Your task to perform on an android device: toggle sleep mode Image 0: 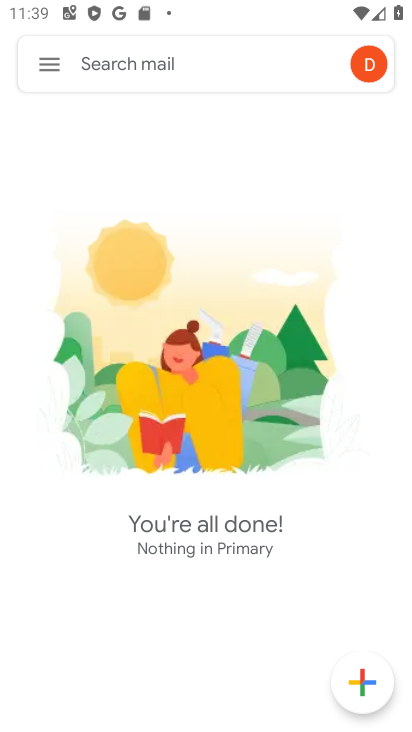
Step 0: press home button
Your task to perform on an android device: toggle sleep mode Image 1: 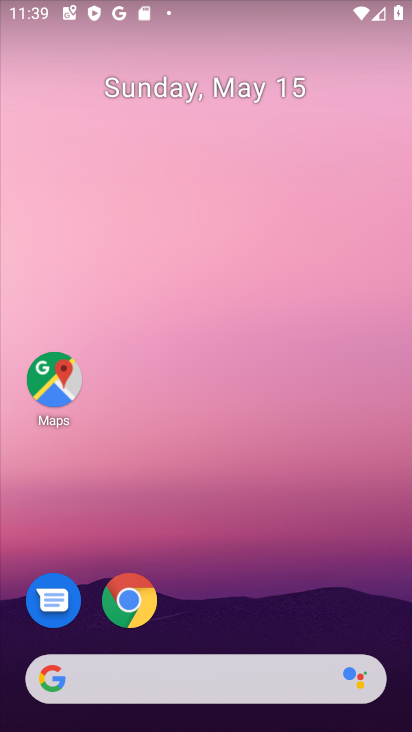
Step 1: drag from (206, 654) to (238, 198)
Your task to perform on an android device: toggle sleep mode Image 2: 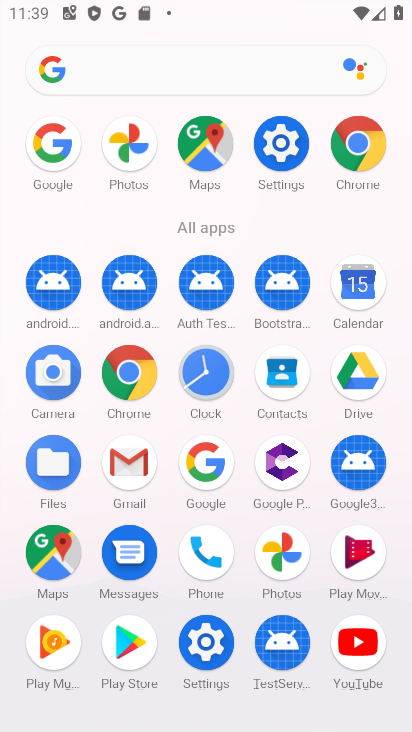
Step 2: click (201, 656)
Your task to perform on an android device: toggle sleep mode Image 3: 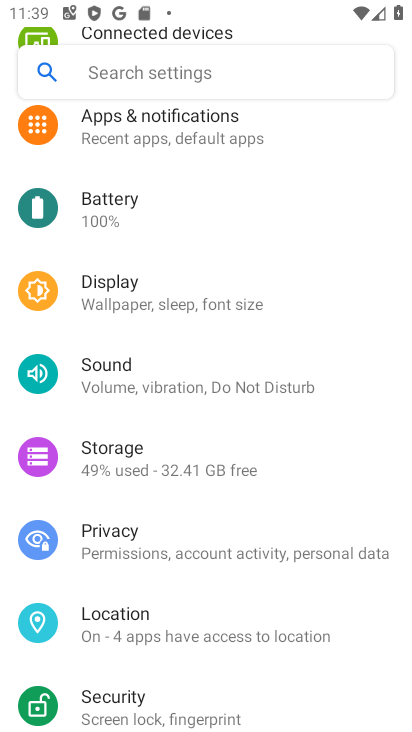
Step 3: click (118, 305)
Your task to perform on an android device: toggle sleep mode Image 4: 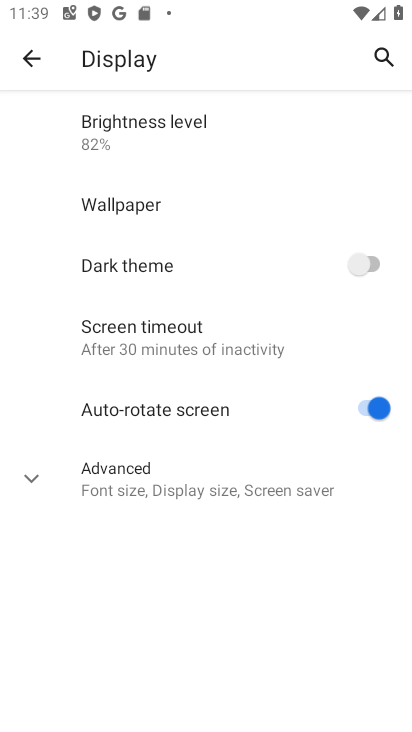
Step 4: click (146, 477)
Your task to perform on an android device: toggle sleep mode Image 5: 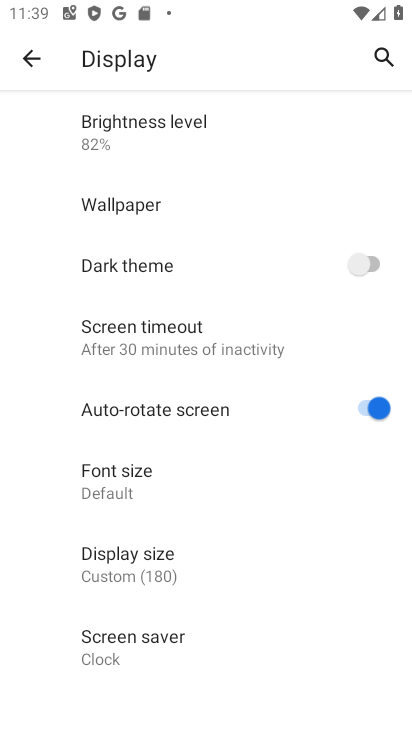
Step 5: task complete